Your task to perform on an android device: open app "Indeed Job Search" (install if not already installed) Image 0: 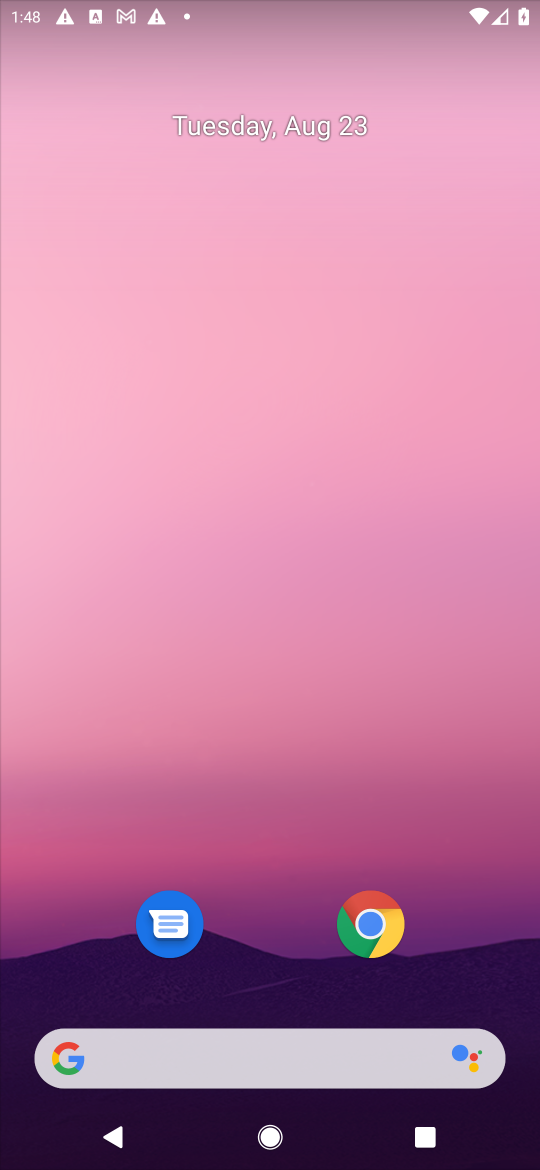
Step 0: press home button
Your task to perform on an android device: open app "Indeed Job Search" (install if not already installed) Image 1: 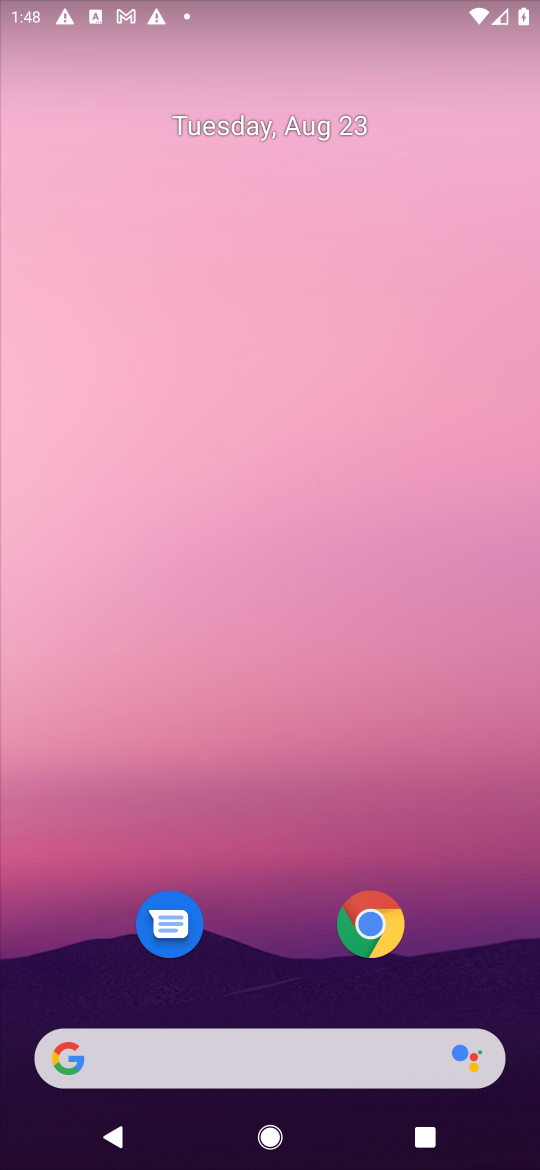
Step 1: drag from (449, 943) to (438, 197)
Your task to perform on an android device: open app "Indeed Job Search" (install if not already installed) Image 2: 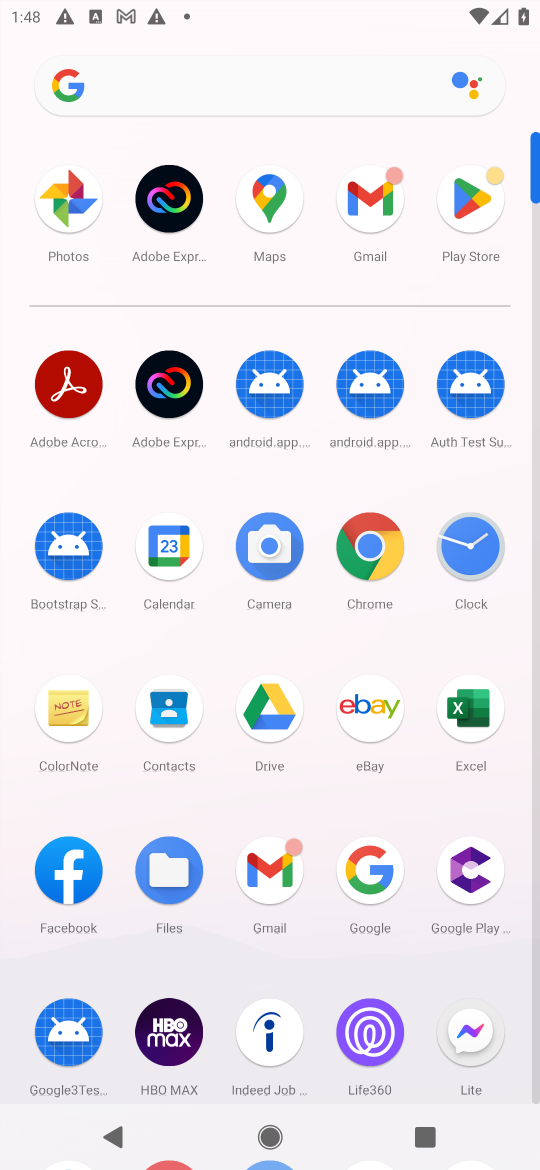
Step 2: click (468, 191)
Your task to perform on an android device: open app "Indeed Job Search" (install if not already installed) Image 3: 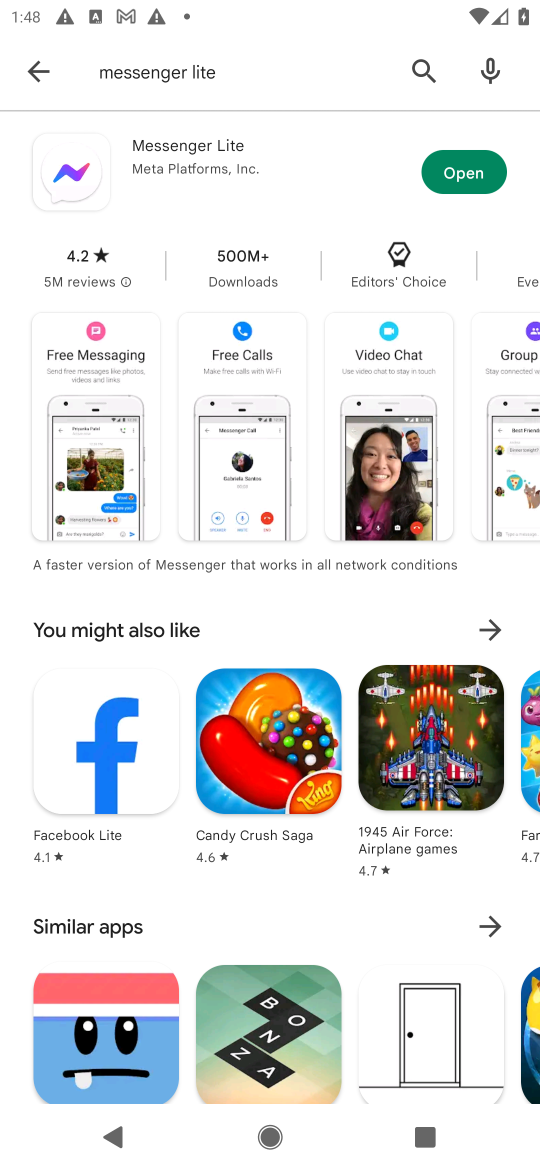
Step 3: press back button
Your task to perform on an android device: open app "Indeed Job Search" (install if not already installed) Image 4: 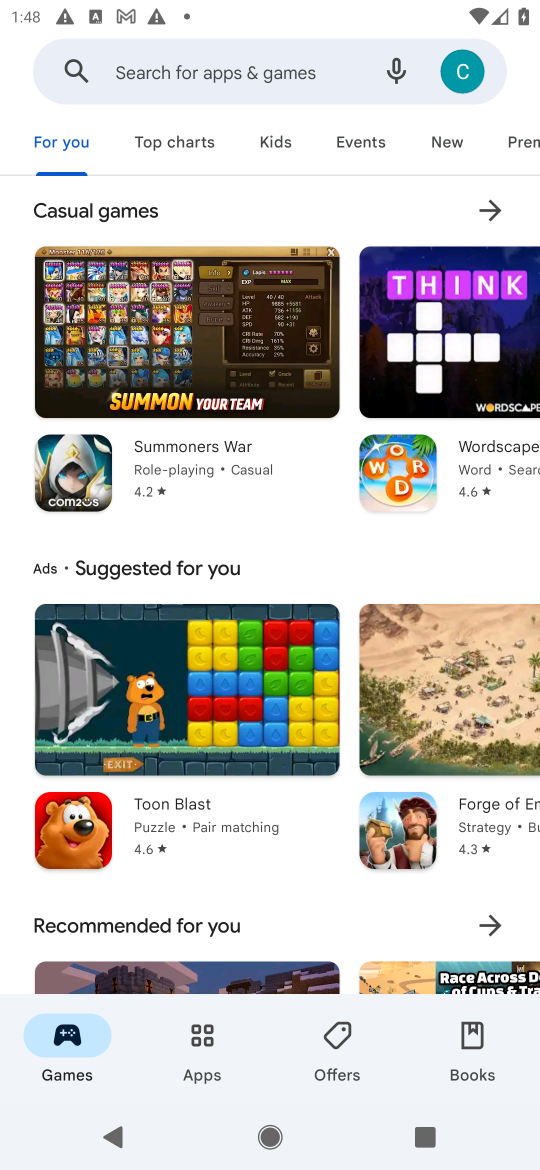
Step 4: click (121, 70)
Your task to perform on an android device: open app "Indeed Job Search" (install if not already installed) Image 5: 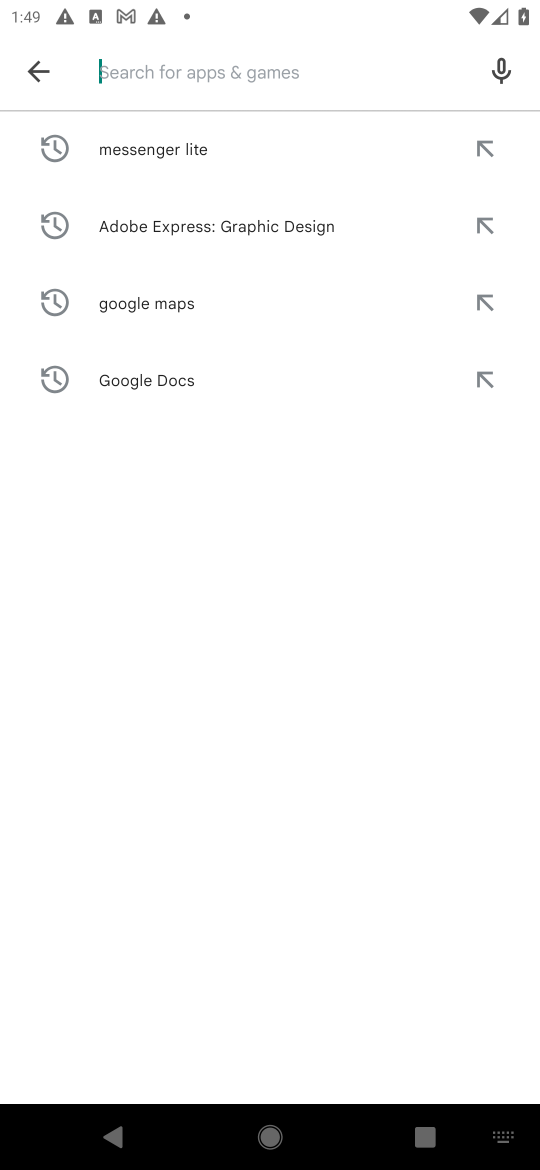
Step 5: press enter
Your task to perform on an android device: open app "Indeed Job Search" (install if not already installed) Image 6: 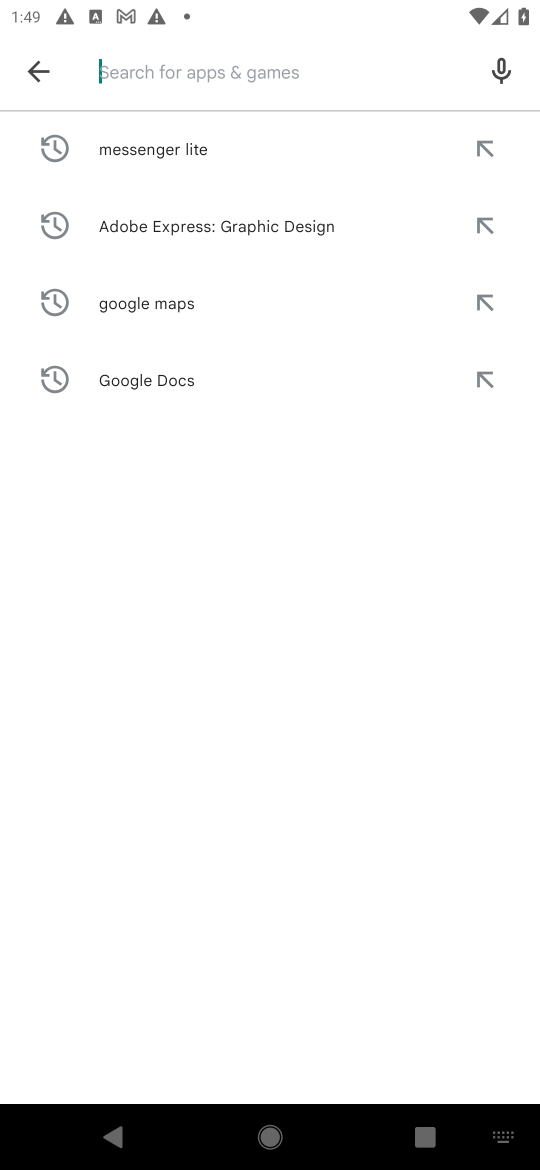
Step 6: type "Indeed Job Search"
Your task to perform on an android device: open app "Indeed Job Search" (install if not already installed) Image 7: 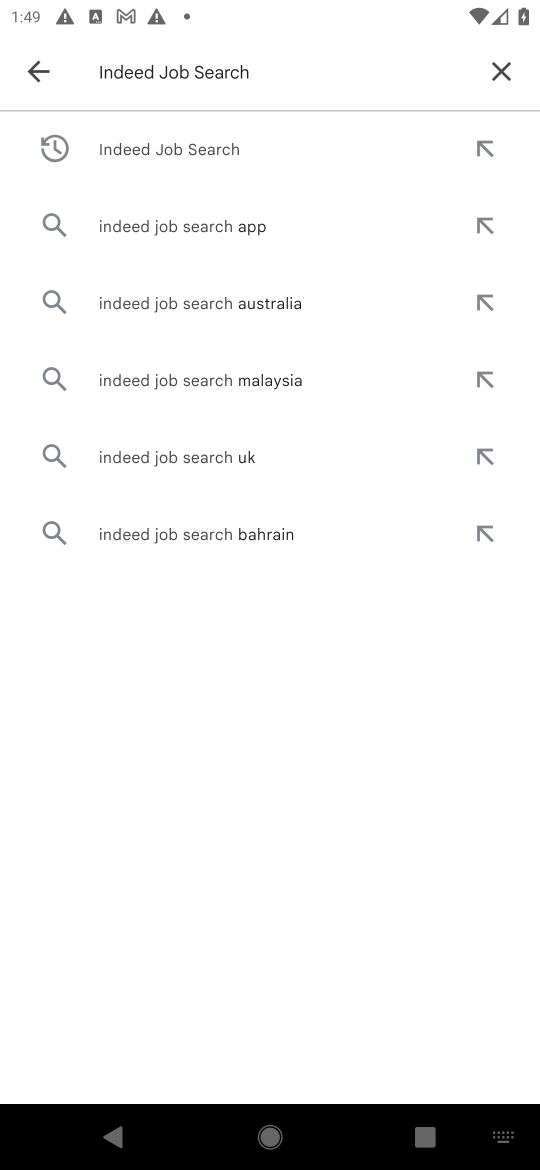
Step 7: click (198, 142)
Your task to perform on an android device: open app "Indeed Job Search" (install if not already installed) Image 8: 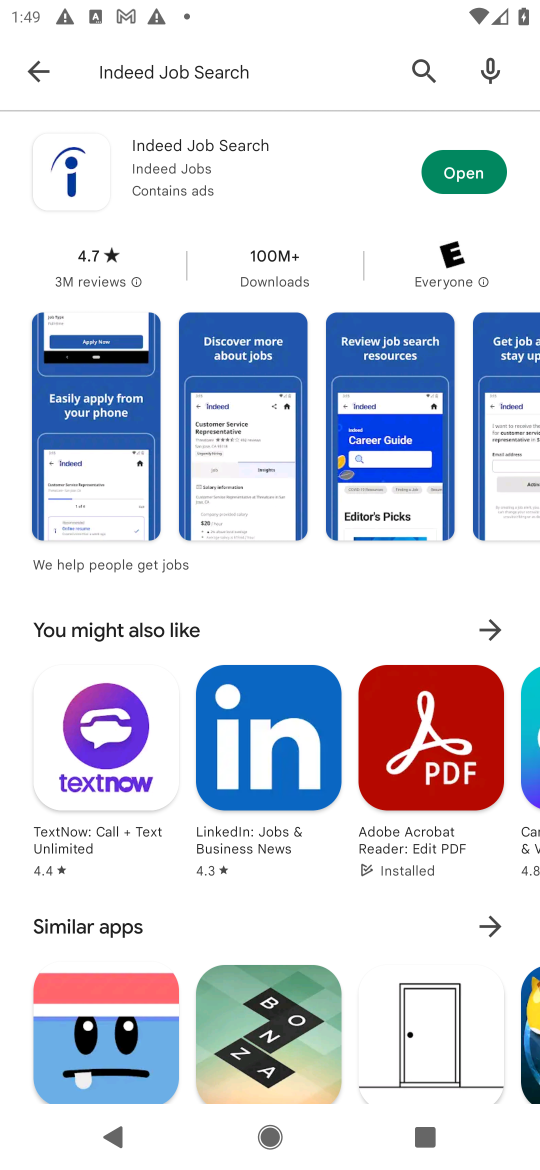
Step 8: click (452, 173)
Your task to perform on an android device: open app "Indeed Job Search" (install if not already installed) Image 9: 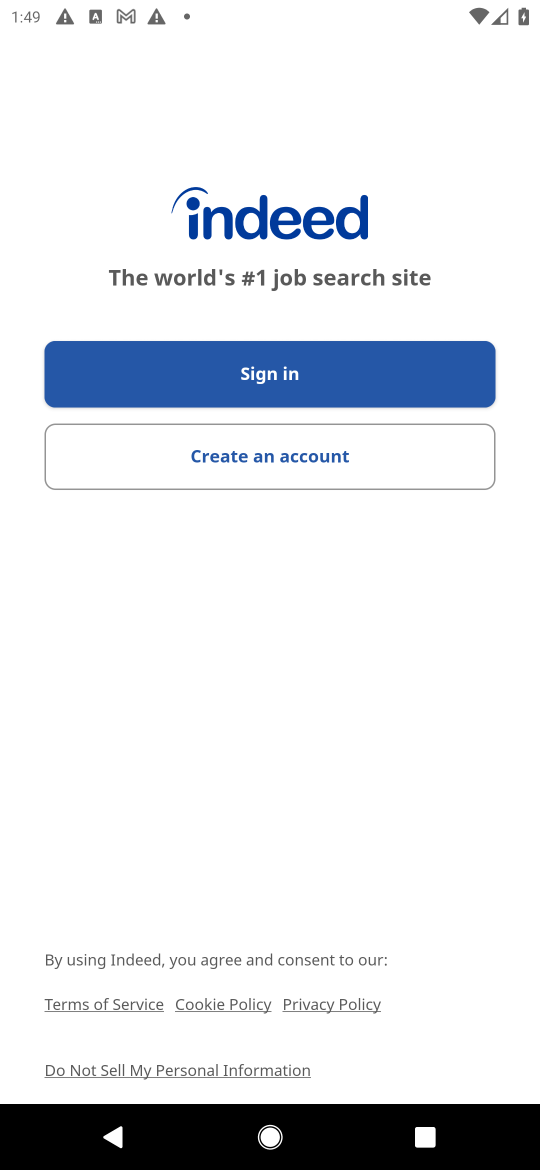
Step 9: task complete